Your task to perform on an android device: Go to Android settings Image 0: 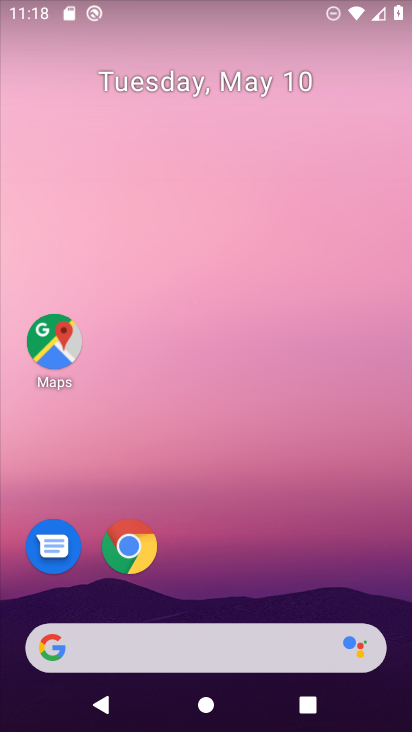
Step 0: drag from (312, 567) to (246, 141)
Your task to perform on an android device: Go to Android settings Image 1: 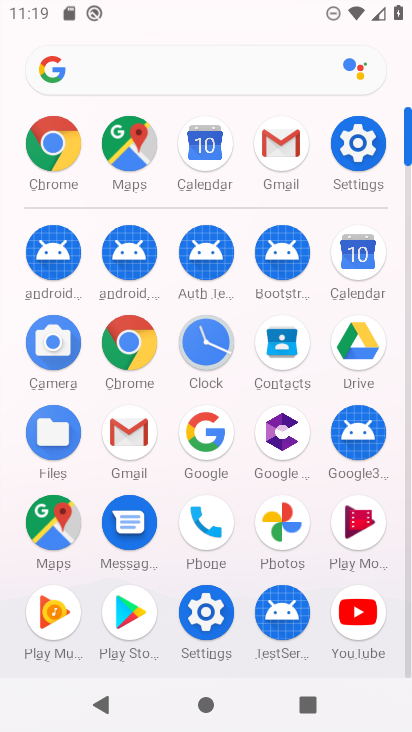
Step 1: click (368, 150)
Your task to perform on an android device: Go to Android settings Image 2: 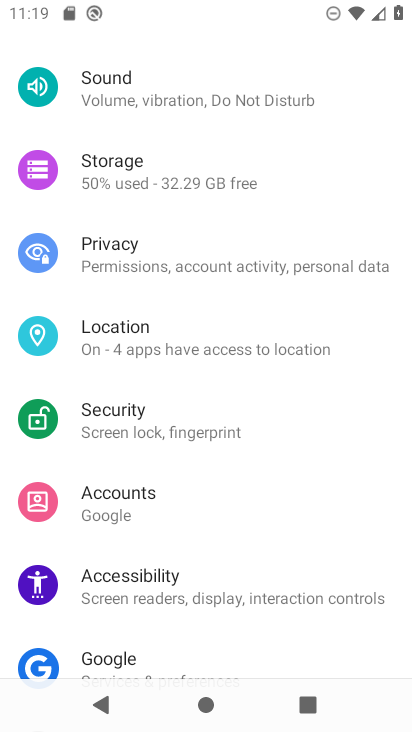
Step 2: task complete